Your task to perform on an android device: Open calendar and show me the third week of next month Image 0: 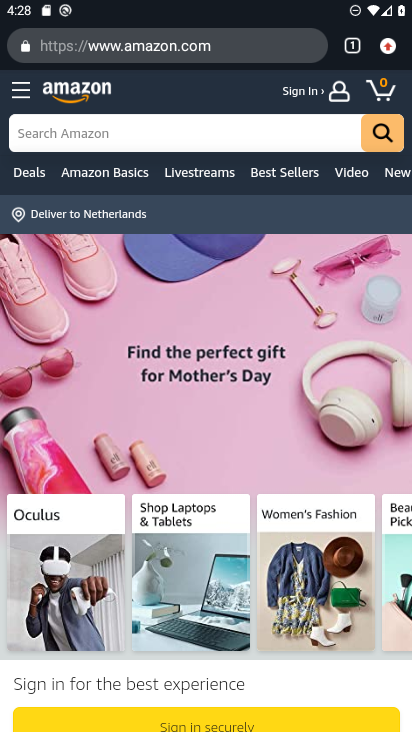
Step 0: press home button
Your task to perform on an android device: Open calendar and show me the third week of next month Image 1: 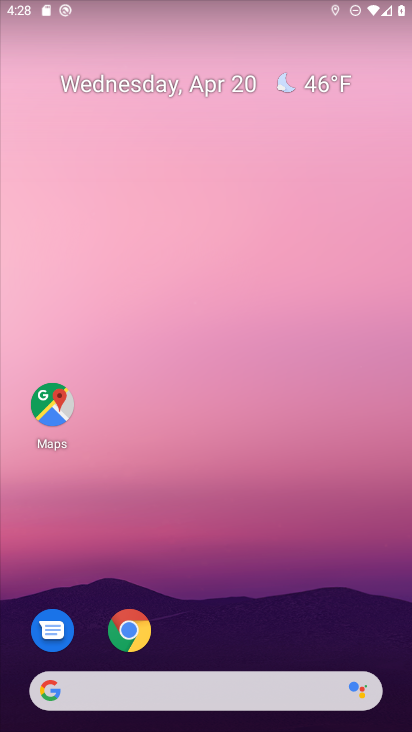
Step 1: drag from (211, 394) to (251, 147)
Your task to perform on an android device: Open calendar and show me the third week of next month Image 2: 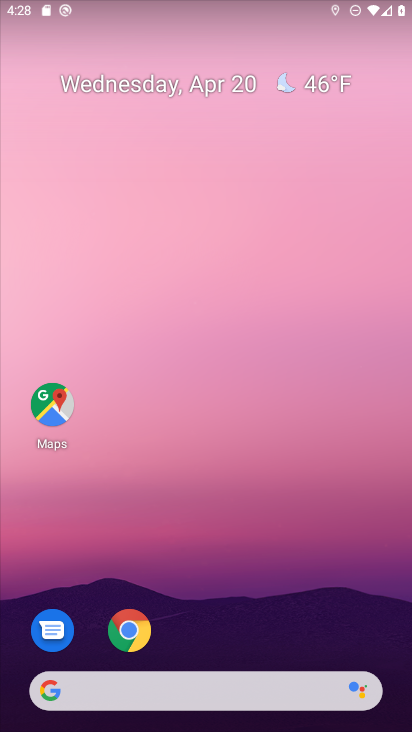
Step 2: drag from (269, 672) to (251, 36)
Your task to perform on an android device: Open calendar and show me the third week of next month Image 3: 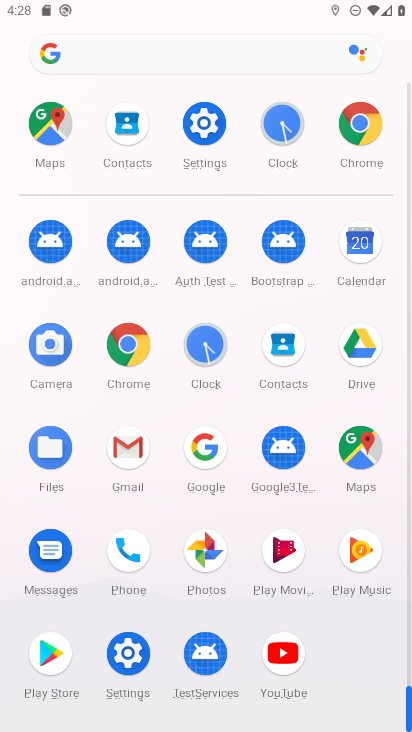
Step 3: click (361, 256)
Your task to perform on an android device: Open calendar and show me the third week of next month Image 4: 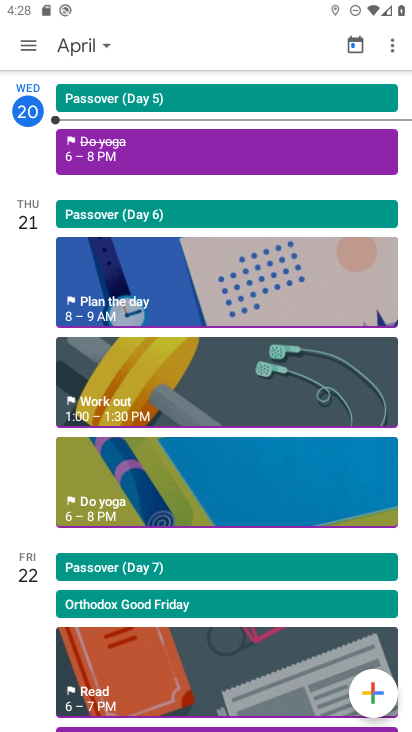
Step 4: click (98, 36)
Your task to perform on an android device: Open calendar and show me the third week of next month Image 5: 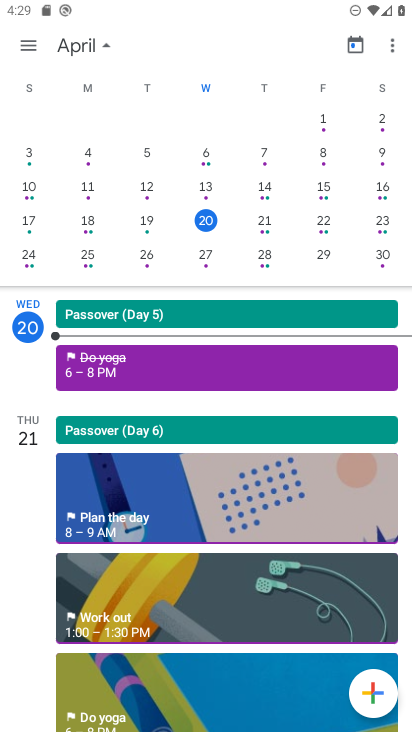
Step 5: drag from (398, 222) to (67, 235)
Your task to perform on an android device: Open calendar and show me the third week of next month Image 6: 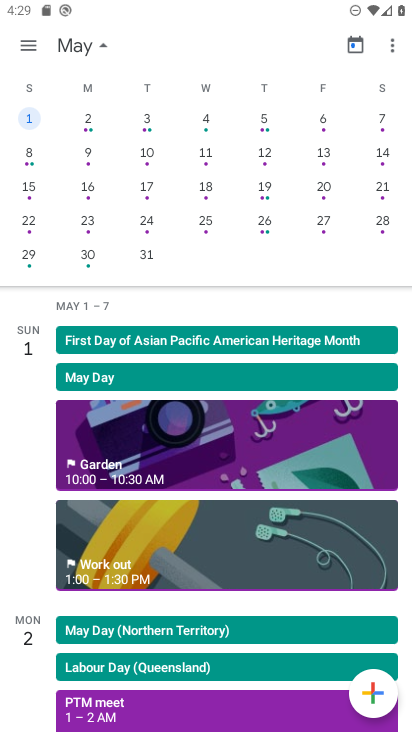
Step 6: click (260, 189)
Your task to perform on an android device: Open calendar and show me the third week of next month Image 7: 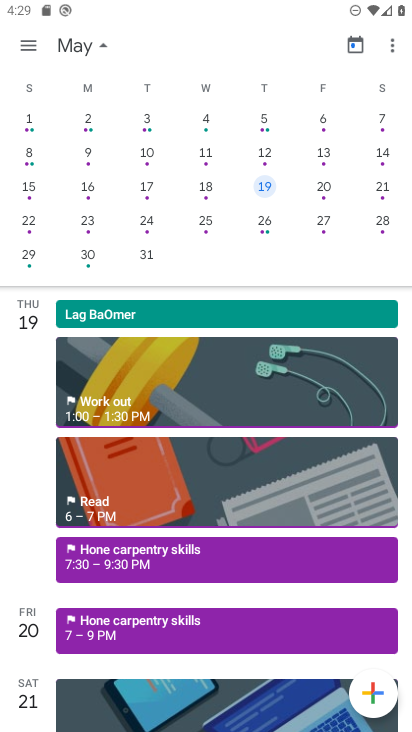
Step 7: task complete